Your task to perform on an android device: turn off location Image 0: 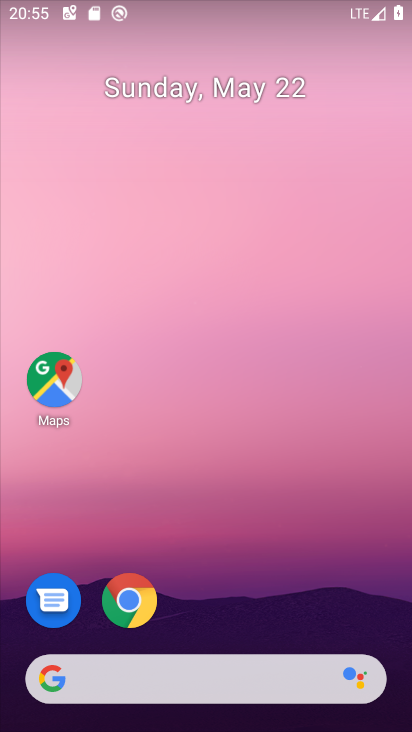
Step 0: drag from (181, 654) to (265, 374)
Your task to perform on an android device: turn off location Image 1: 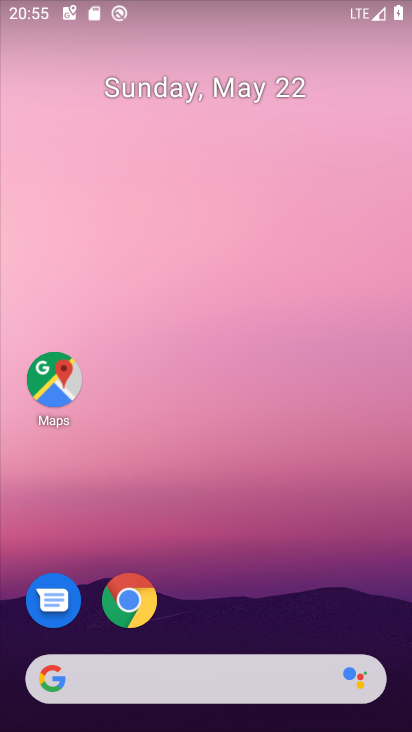
Step 1: drag from (201, 675) to (262, 240)
Your task to perform on an android device: turn off location Image 2: 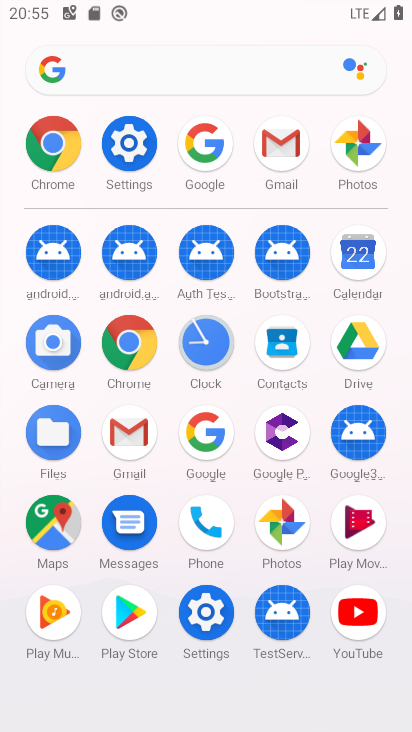
Step 2: click (133, 138)
Your task to perform on an android device: turn off location Image 3: 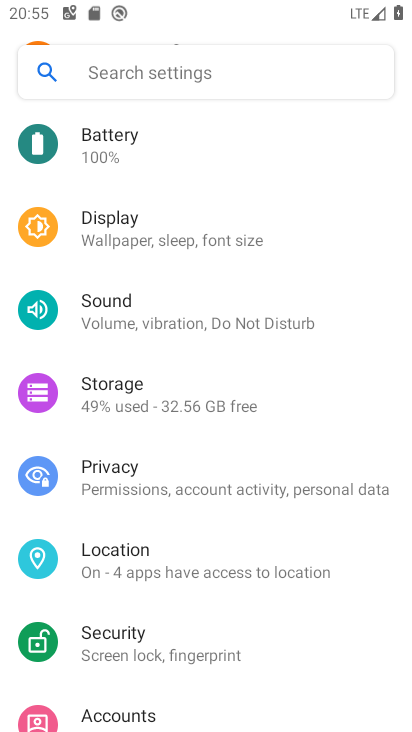
Step 3: click (138, 570)
Your task to perform on an android device: turn off location Image 4: 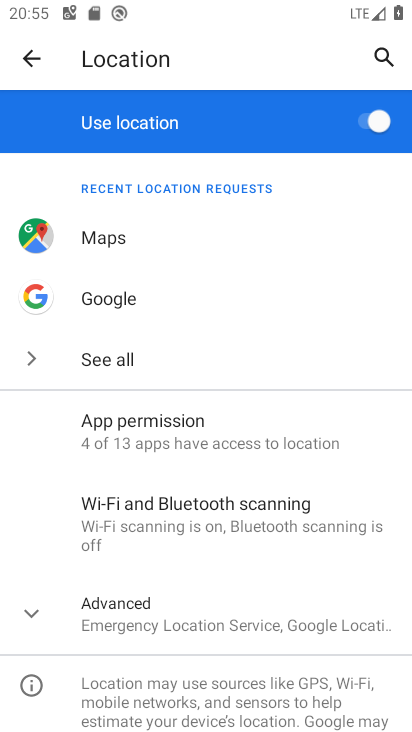
Step 4: click (132, 624)
Your task to perform on an android device: turn off location Image 5: 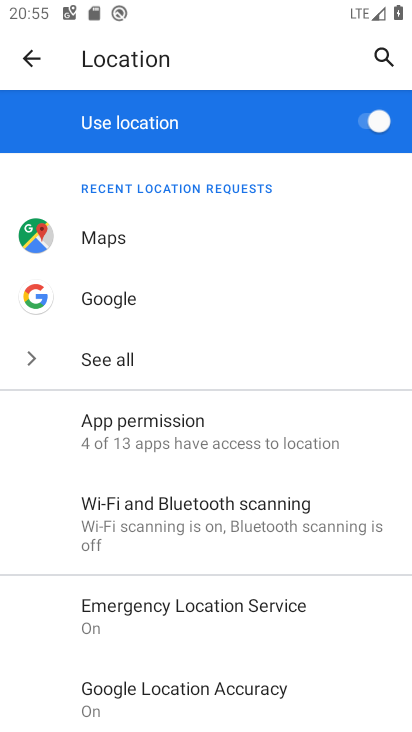
Step 5: click (364, 118)
Your task to perform on an android device: turn off location Image 6: 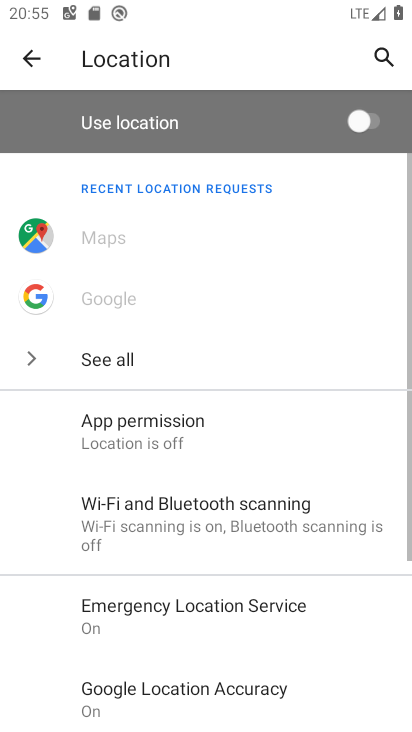
Step 6: task complete